Your task to perform on an android device: Find coffee shops on Maps Image 0: 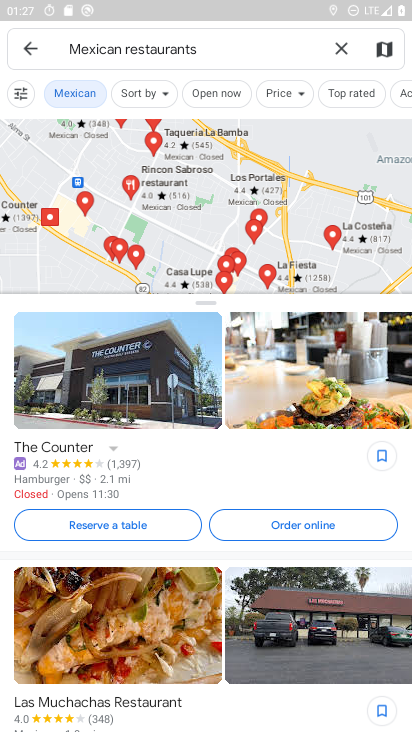
Step 0: click (251, 55)
Your task to perform on an android device: Find coffee shops on Maps Image 1: 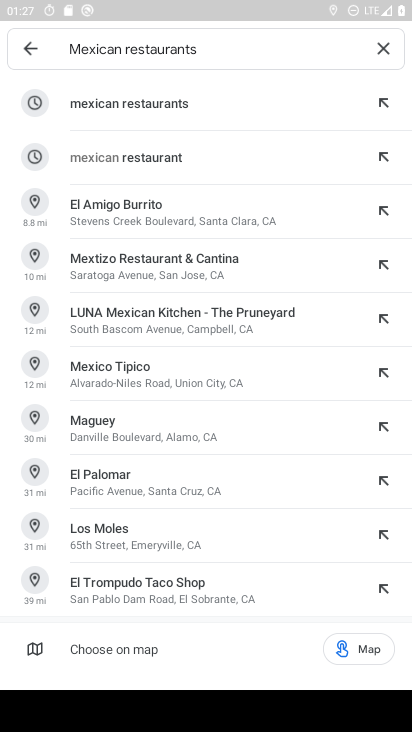
Step 1: click (386, 44)
Your task to perform on an android device: Find coffee shops on Maps Image 2: 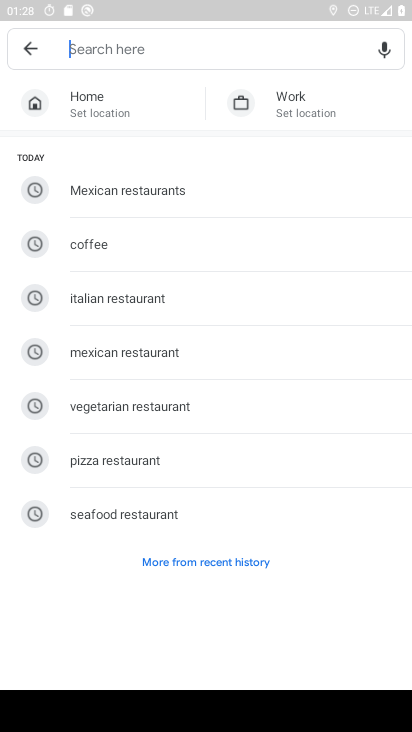
Step 2: type "coffee shops"
Your task to perform on an android device: Find coffee shops on Maps Image 3: 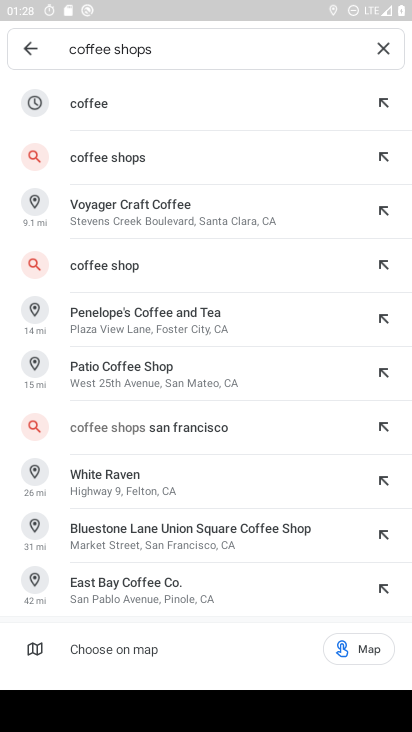
Step 3: click (145, 162)
Your task to perform on an android device: Find coffee shops on Maps Image 4: 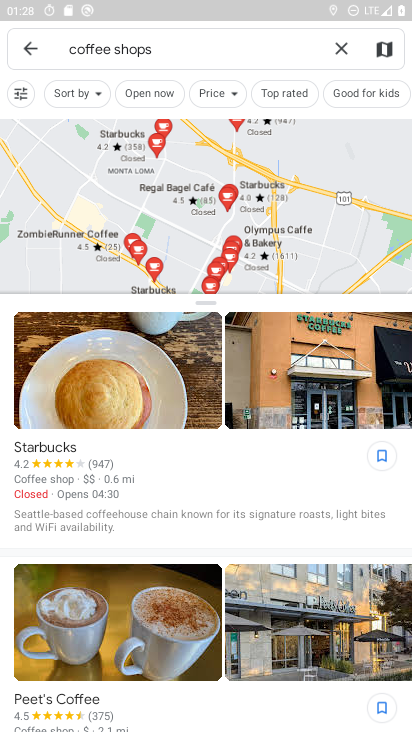
Step 4: task complete